Your task to perform on an android device: see creations saved in the google photos Image 0: 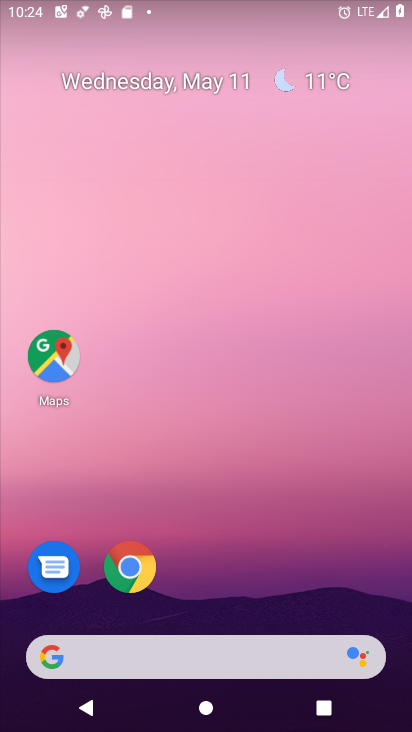
Step 0: drag from (250, 523) to (179, 75)
Your task to perform on an android device: see creations saved in the google photos Image 1: 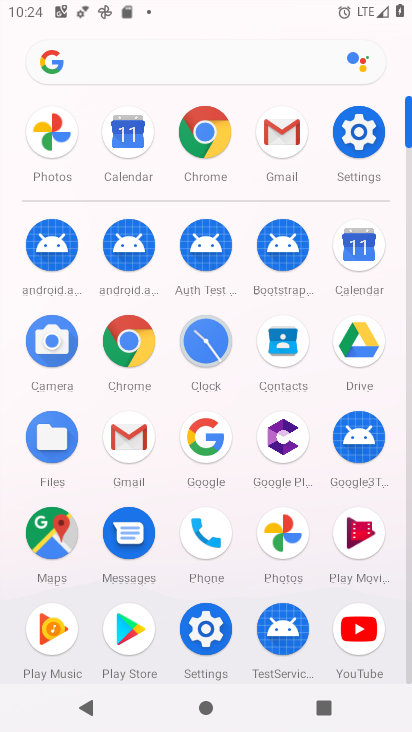
Step 1: click (56, 127)
Your task to perform on an android device: see creations saved in the google photos Image 2: 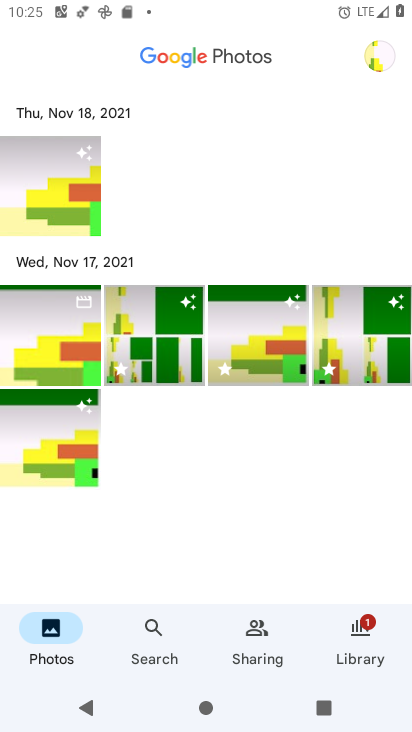
Step 2: click (162, 627)
Your task to perform on an android device: see creations saved in the google photos Image 3: 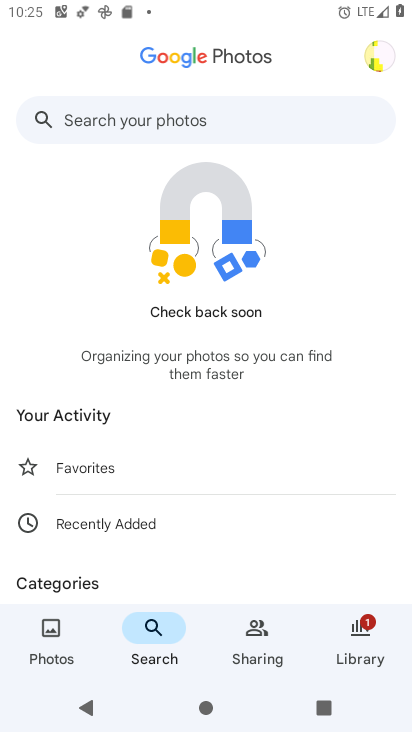
Step 3: click (174, 105)
Your task to perform on an android device: see creations saved in the google photos Image 4: 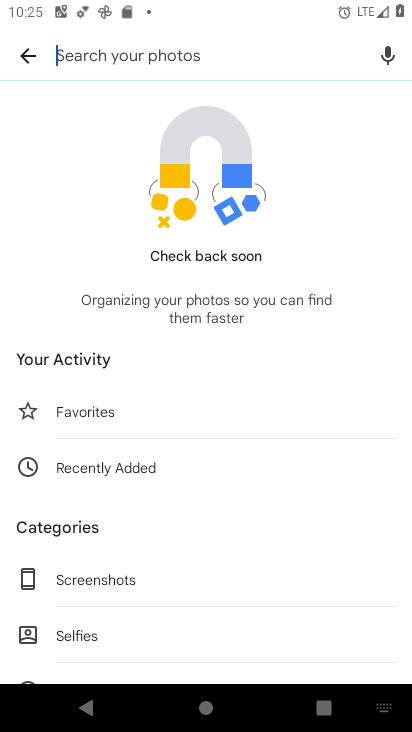
Step 4: type "creations"
Your task to perform on an android device: see creations saved in the google photos Image 5: 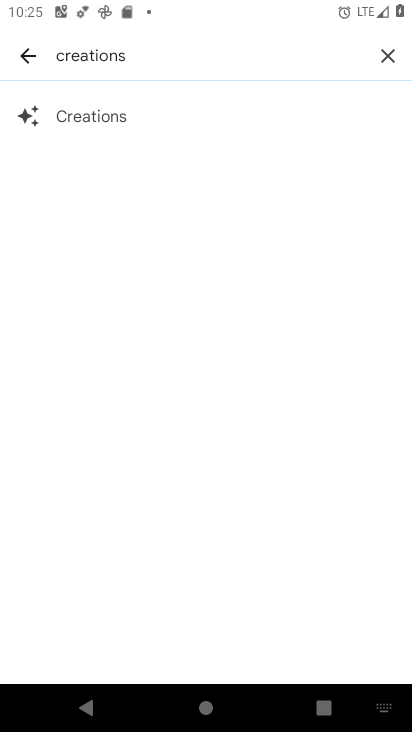
Step 5: click (101, 105)
Your task to perform on an android device: see creations saved in the google photos Image 6: 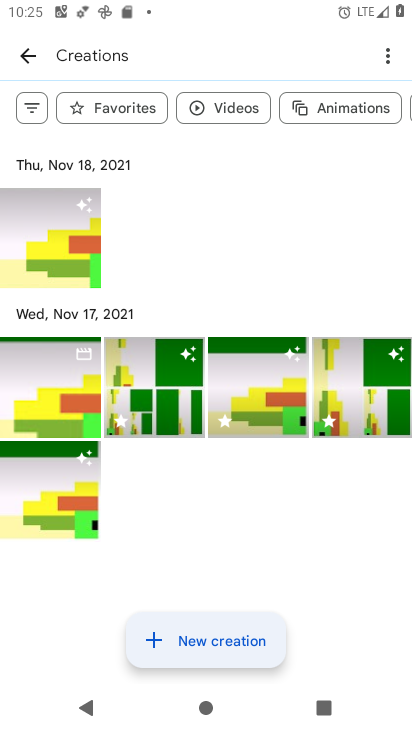
Step 6: task complete